Your task to perform on an android device: change keyboard looks Image 0: 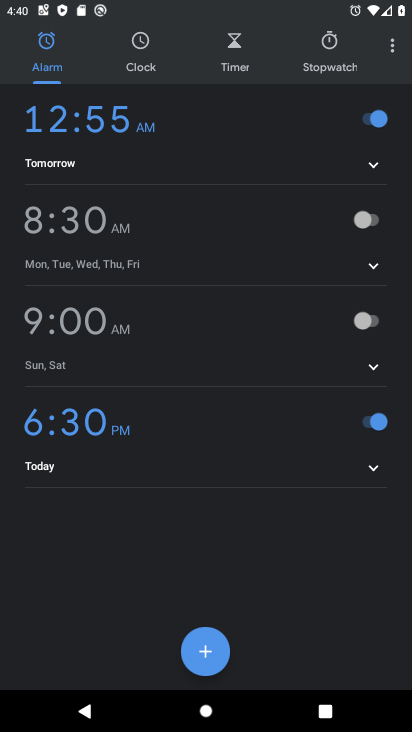
Step 0: press home button
Your task to perform on an android device: change keyboard looks Image 1: 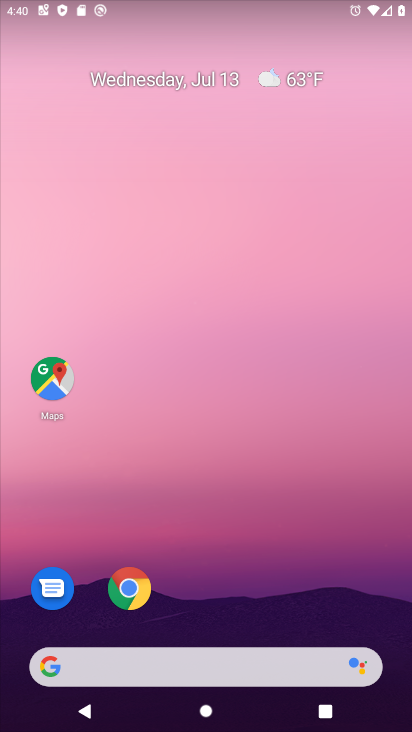
Step 1: drag from (209, 665) to (263, 174)
Your task to perform on an android device: change keyboard looks Image 2: 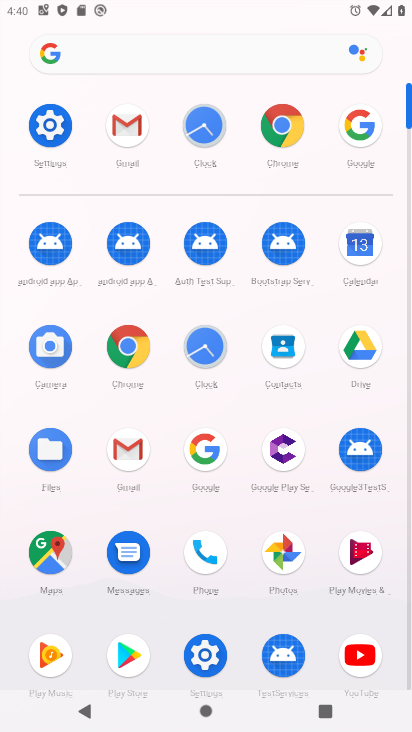
Step 2: click (50, 126)
Your task to perform on an android device: change keyboard looks Image 3: 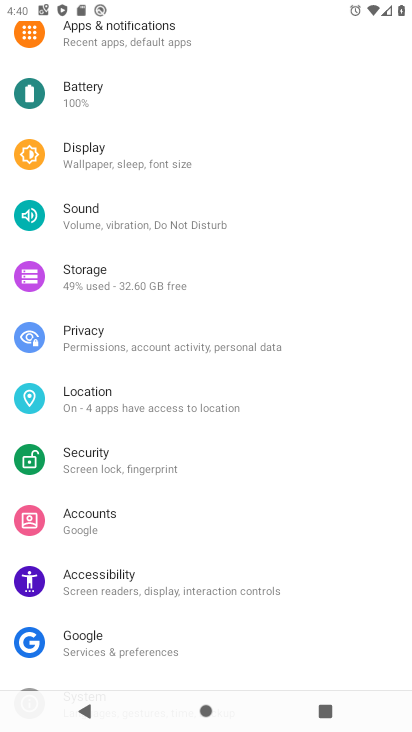
Step 3: drag from (132, 611) to (141, 439)
Your task to perform on an android device: change keyboard looks Image 4: 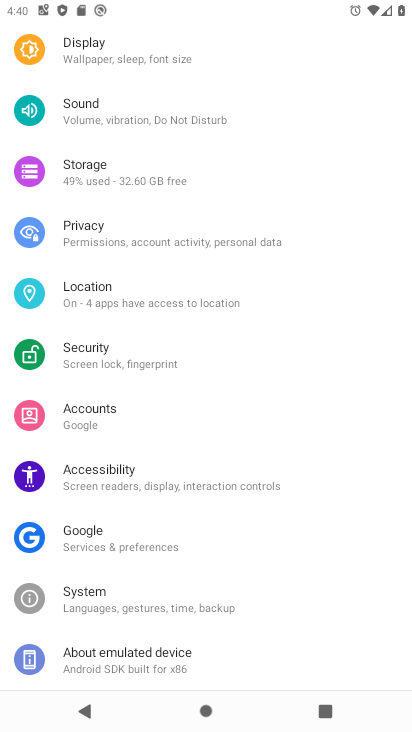
Step 4: click (104, 600)
Your task to perform on an android device: change keyboard looks Image 5: 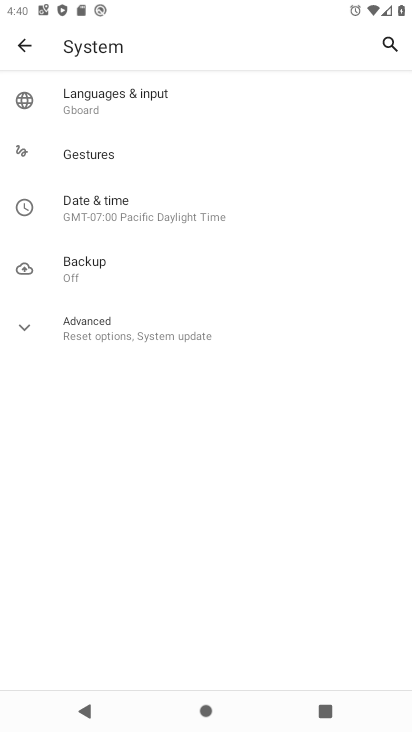
Step 5: click (135, 93)
Your task to perform on an android device: change keyboard looks Image 6: 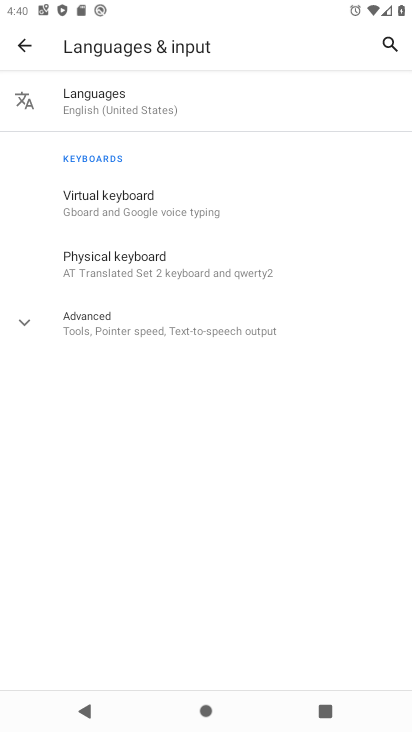
Step 6: click (124, 204)
Your task to perform on an android device: change keyboard looks Image 7: 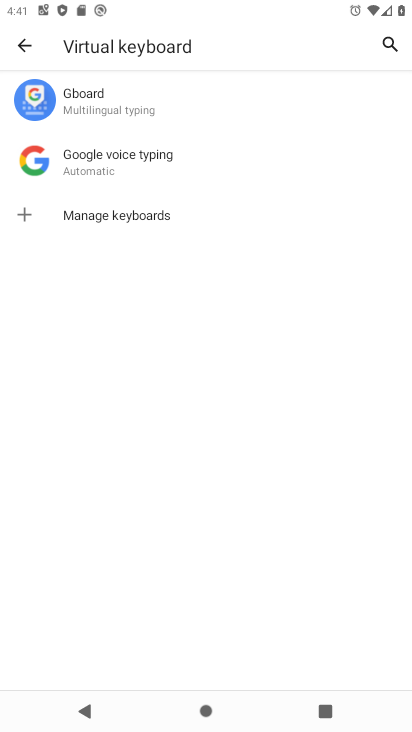
Step 7: click (89, 108)
Your task to perform on an android device: change keyboard looks Image 8: 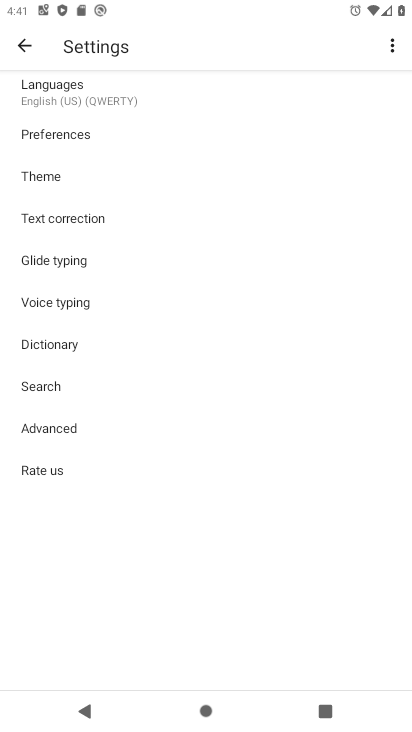
Step 8: click (52, 178)
Your task to perform on an android device: change keyboard looks Image 9: 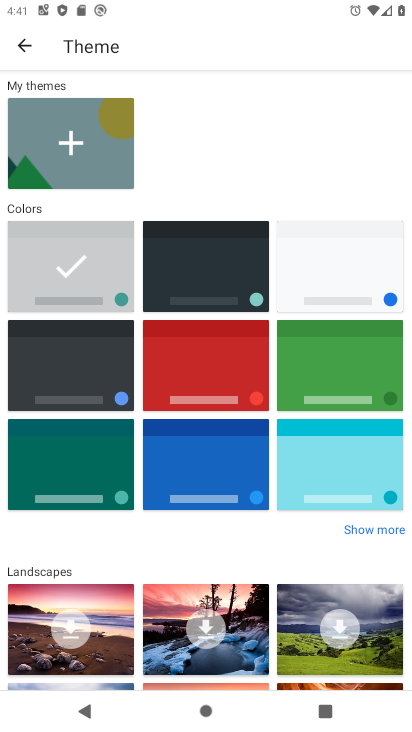
Step 9: click (349, 378)
Your task to perform on an android device: change keyboard looks Image 10: 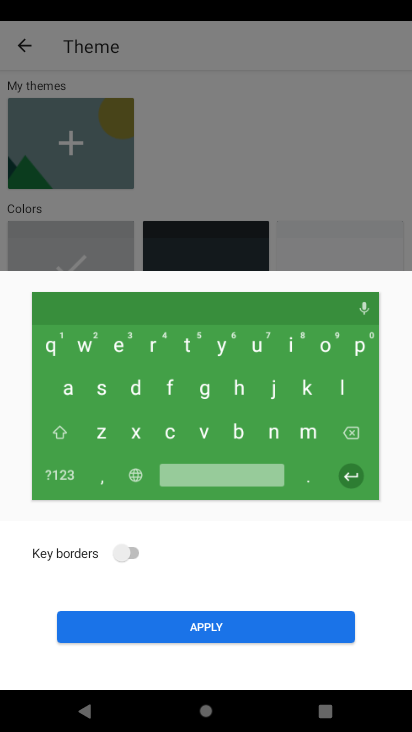
Step 10: click (128, 556)
Your task to perform on an android device: change keyboard looks Image 11: 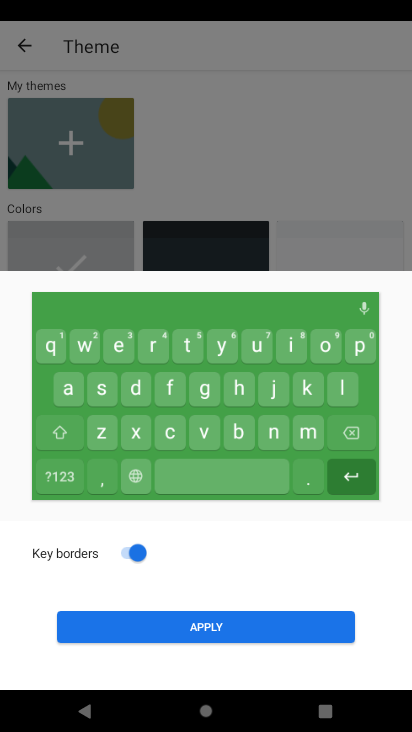
Step 11: click (206, 628)
Your task to perform on an android device: change keyboard looks Image 12: 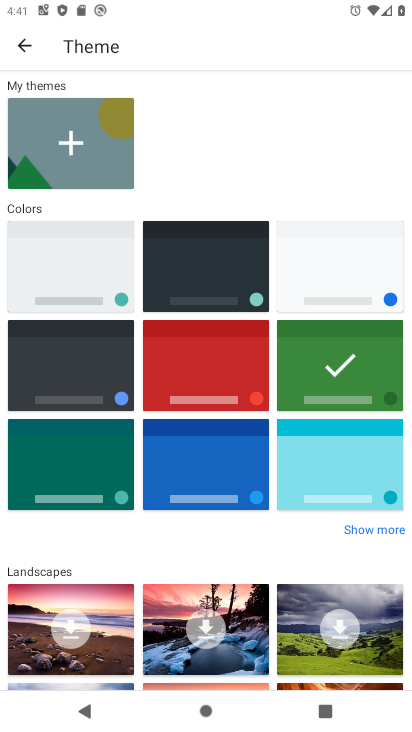
Step 12: task complete